Your task to perform on an android device: Open the stopwatch Image 0: 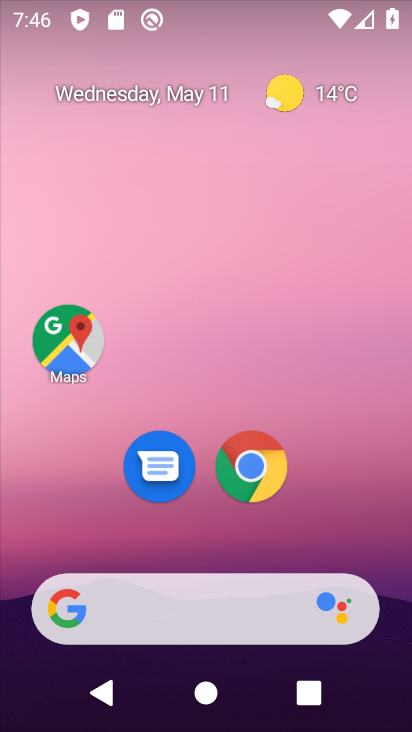
Step 0: drag from (246, 526) to (259, 0)
Your task to perform on an android device: Open the stopwatch Image 1: 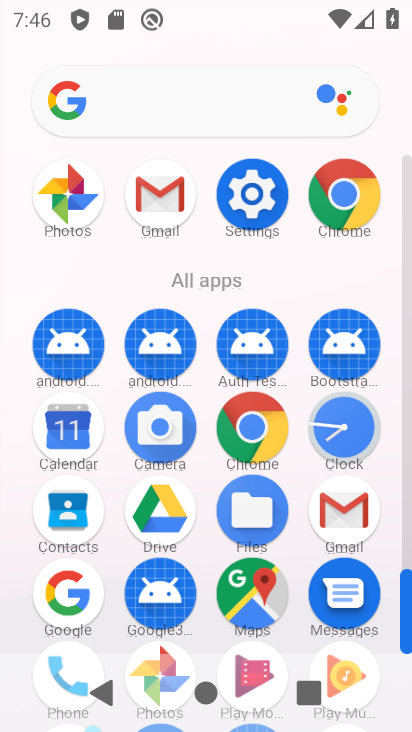
Step 1: click (328, 428)
Your task to perform on an android device: Open the stopwatch Image 2: 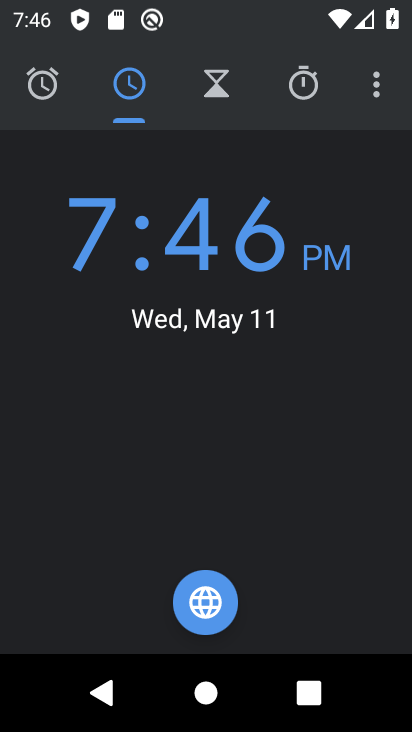
Step 2: click (317, 76)
Your task to perform on an android device: Open the stopwatch Image 3: 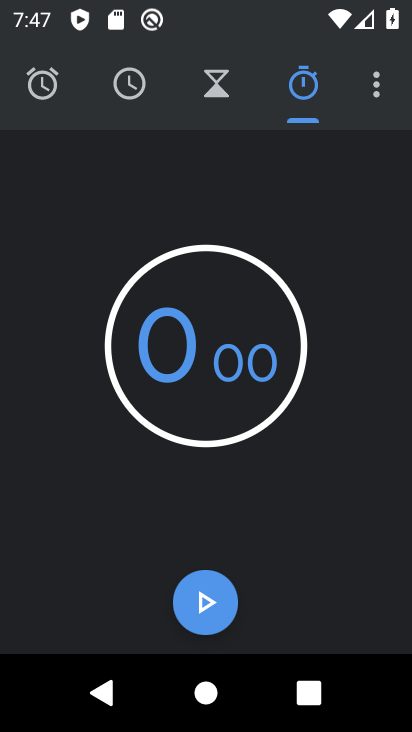
Step 3: task complete